Your task to perform on an android device: find photos in the google photos app Image 0: 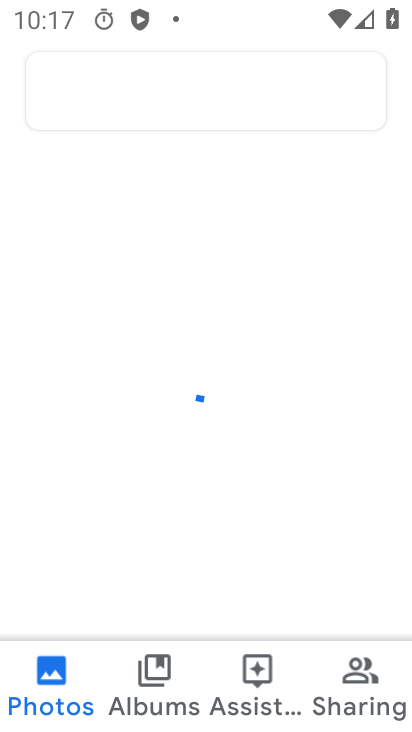
Step 0: press home button
Your task to perform on an android device: find photos in the google photos app Image 1: 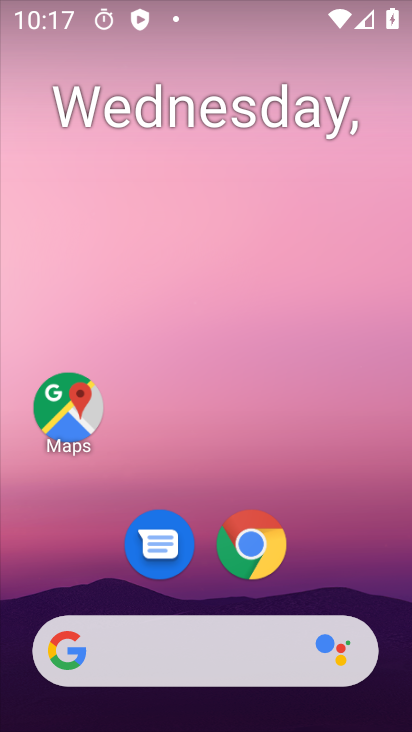
Step 1: drag from (296, 640) to (319, 96)
Your task to perform on an android device: find photos in the google photos app Image 2: 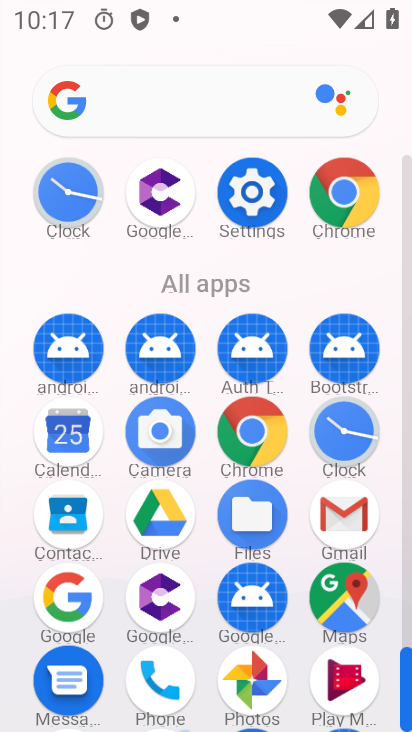
Step 2: click (245, 671)
Your task to perform on an android device: find photos in the google photos app Image 3: 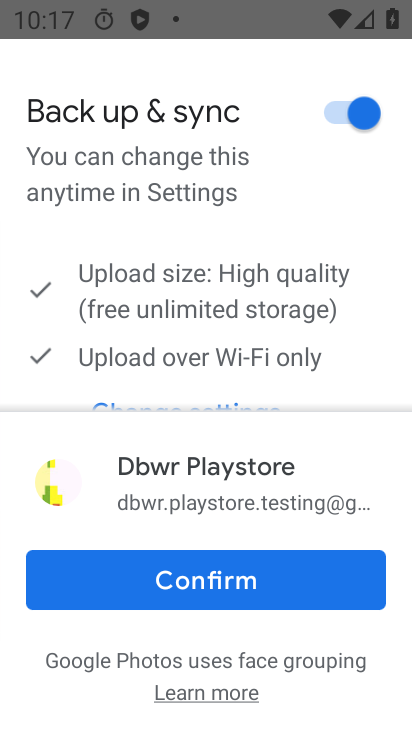
Step 3: click (269, 583)
Your task to perform on an android device: find photos in the google photos app Image 4: 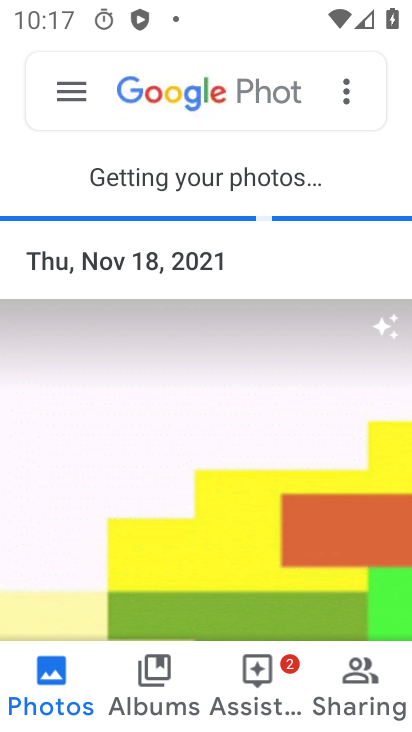
Step 4: task complete